Your task to perform on an android device: turn off priority inbox in the gmail app Image 0: 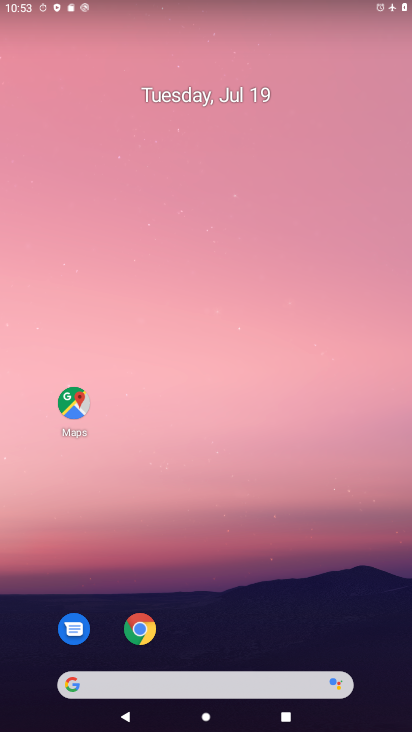
Step 0: drag from (286, 629) to (197, 75)
Your task to perform on an android device: turn off priority inbox in the gmail app Image 1: 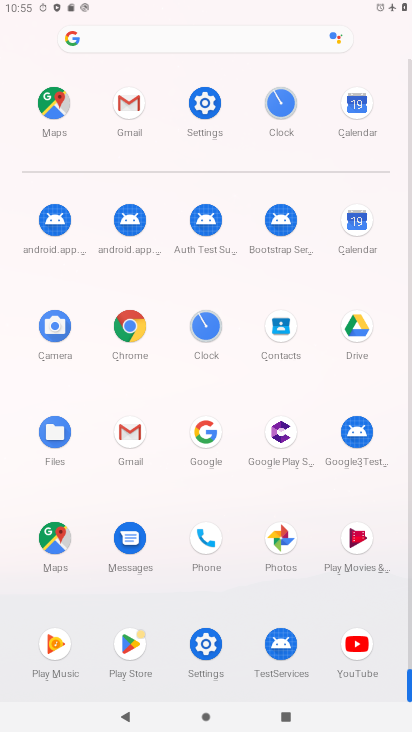
Step 1: click (128, 442)
Your task to perform on an android device: turn off priority inbox in the gmail app Image 2: 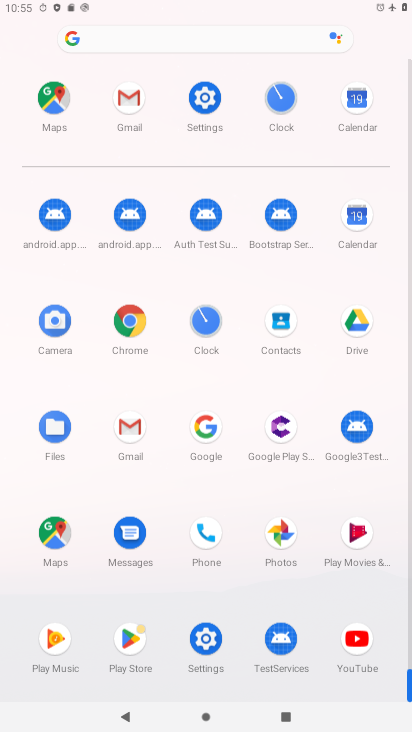
Step 2: click (133, 427)
Your task to perform on an android device: turn off priority inbox in the gmail app Image 3: 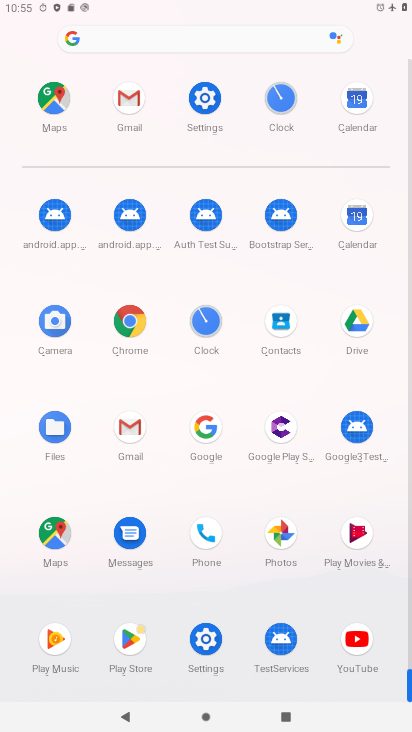
Step 3: click (132, 428)
Your task to perform on an android device: turn off priority inbox in the gmail app Image 4: 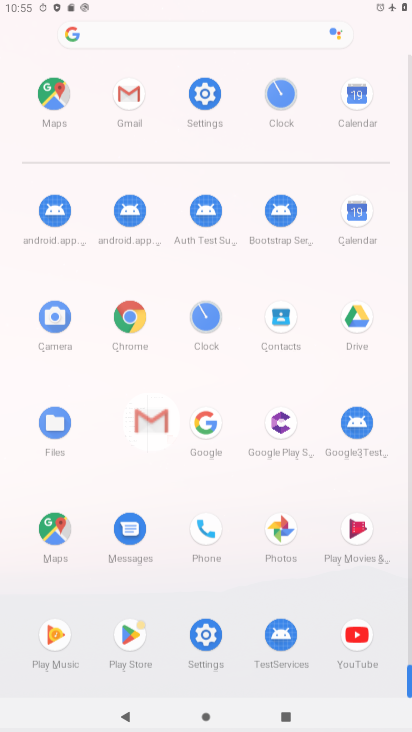
Step 4: click (131, 429)
Your task to perform on an android device: turn off priority inbox in the gmail app Image 5: 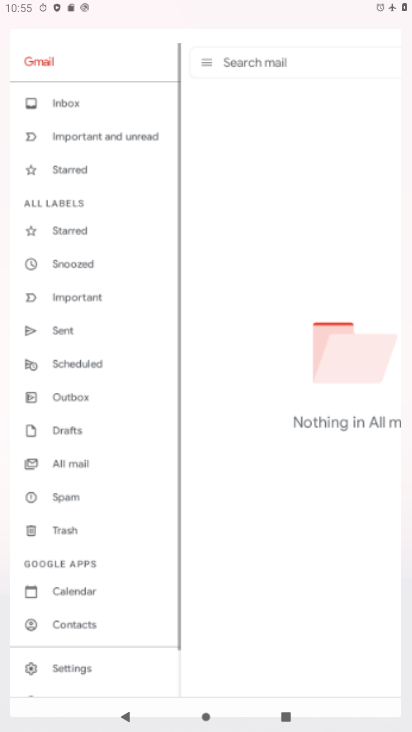
Step 5: click (132, 429)
Your task to perform on an android device: turn off priority inbox in the gmail app Image 6: 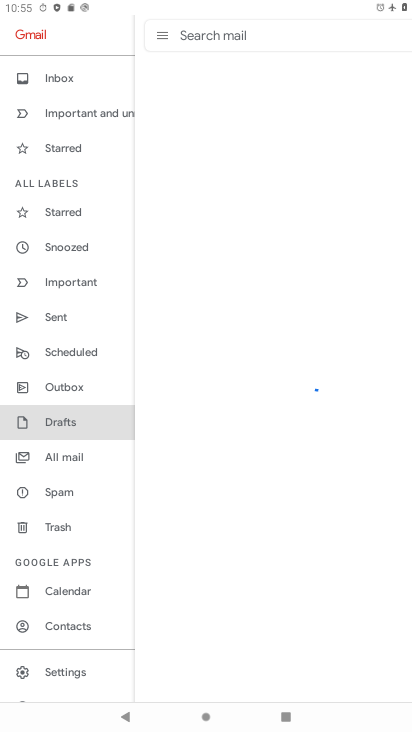
Step 6: click (66, 673)
Your task to perform on an android device: turn off priority inbox in the gmail app Image 7: 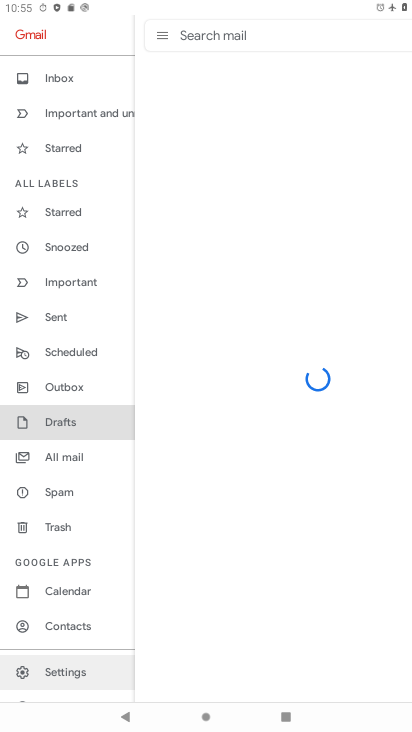
Step 7: click (68, 671)
Your task to perform on an android device: turn off priority inbox in the gmail app Image 8: 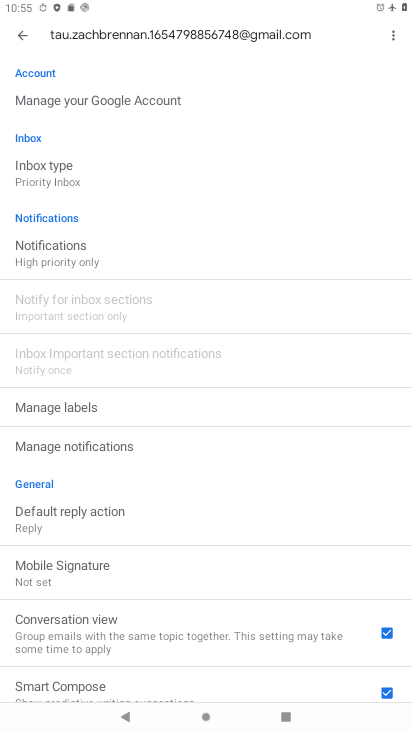
Step 8: click (36, 171)
Your task to perform on an android device: turn off priority inbox in the gmail app Image 9: 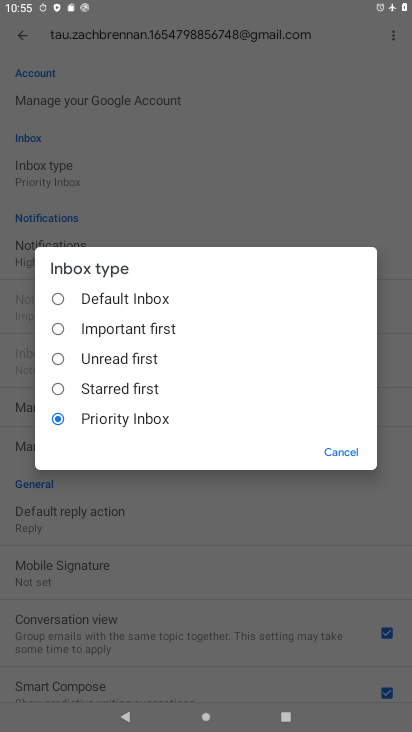
Step 9: click (54, 388)
Your task to perform on an android device: turn off priority inbox in the gmail app Image 10: 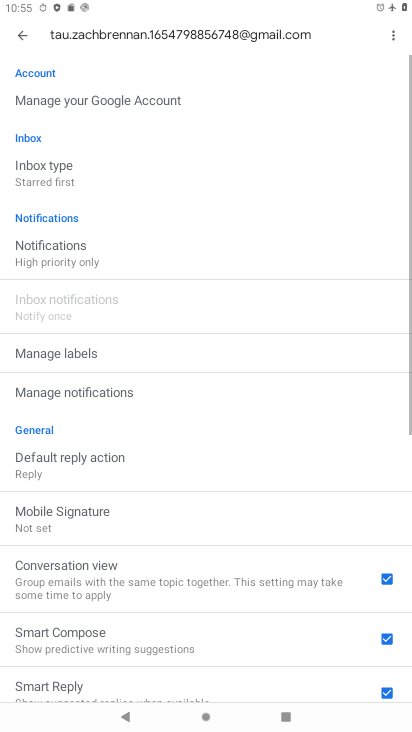
Step 10: task complete